Your task to perform on an android device: show emergency info Image 0: 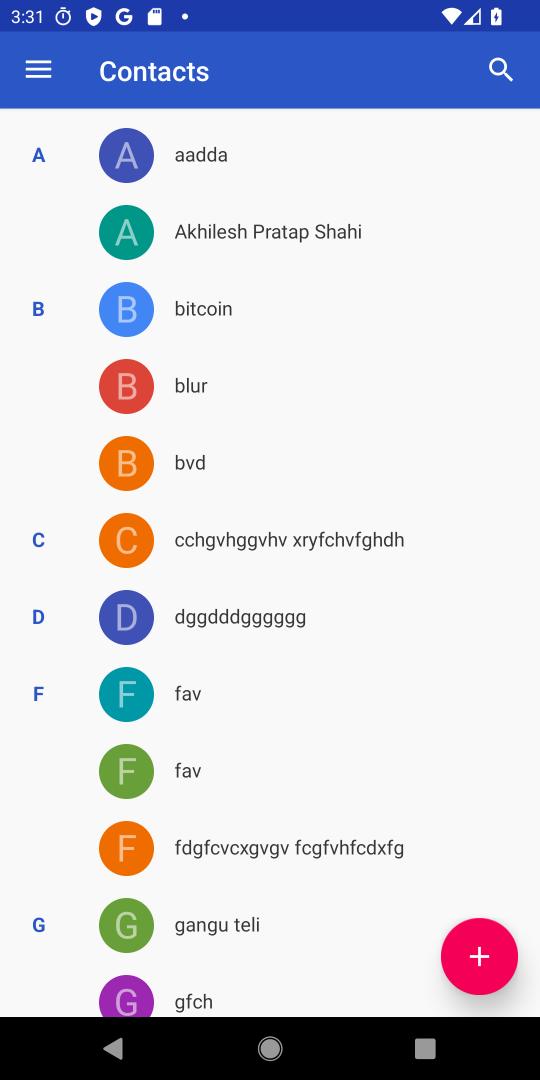
Step 0: press home button
Your task to perform on an android device: show emergency info Image 1: 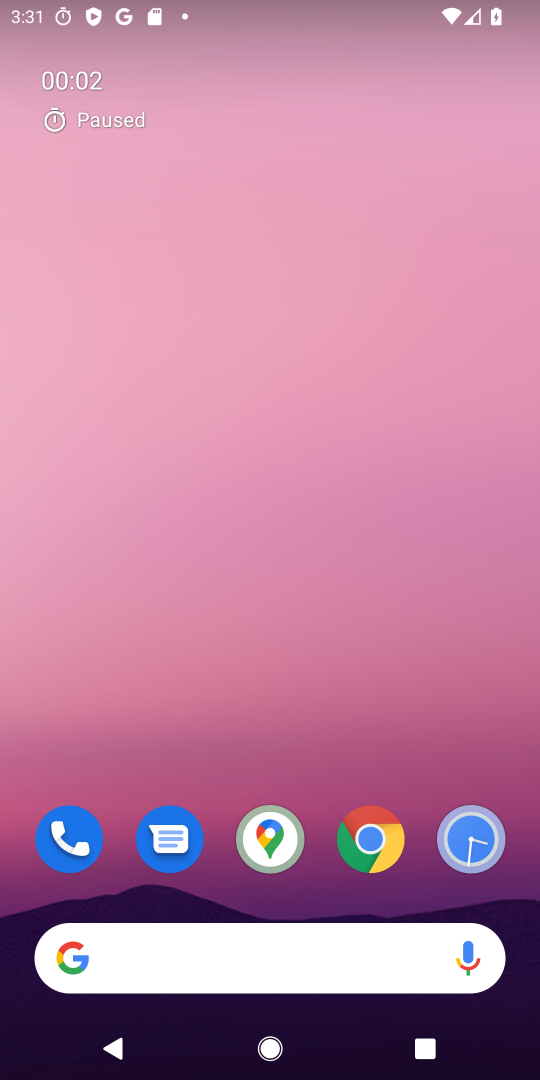
Step 1: drag from (45, 1029) to (157, 703)
Your task to perform on an android device: show emergency info Image 2: 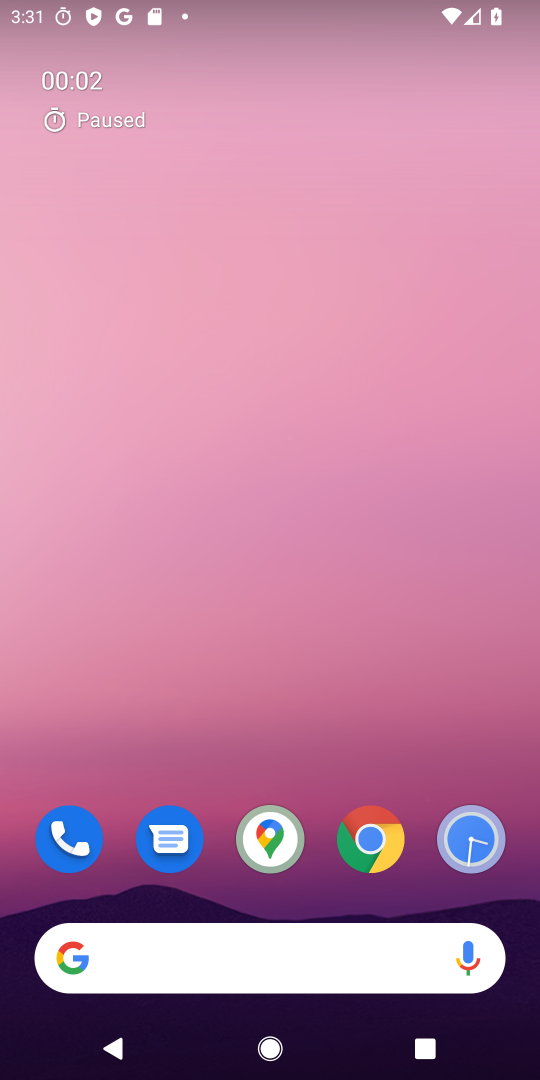
Step 2: drag from (17, 1023) to (343, 340)
Your task to perform on an android device: show emergency info Image 3: 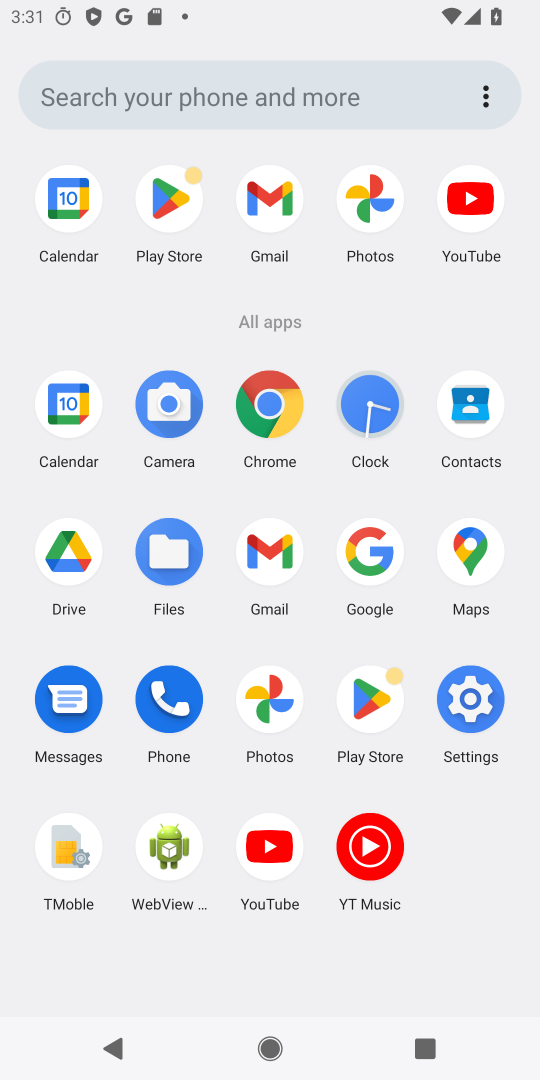
Step 3: click (455, 715)
Your task to perform on an android device: show emergency info Image 4: 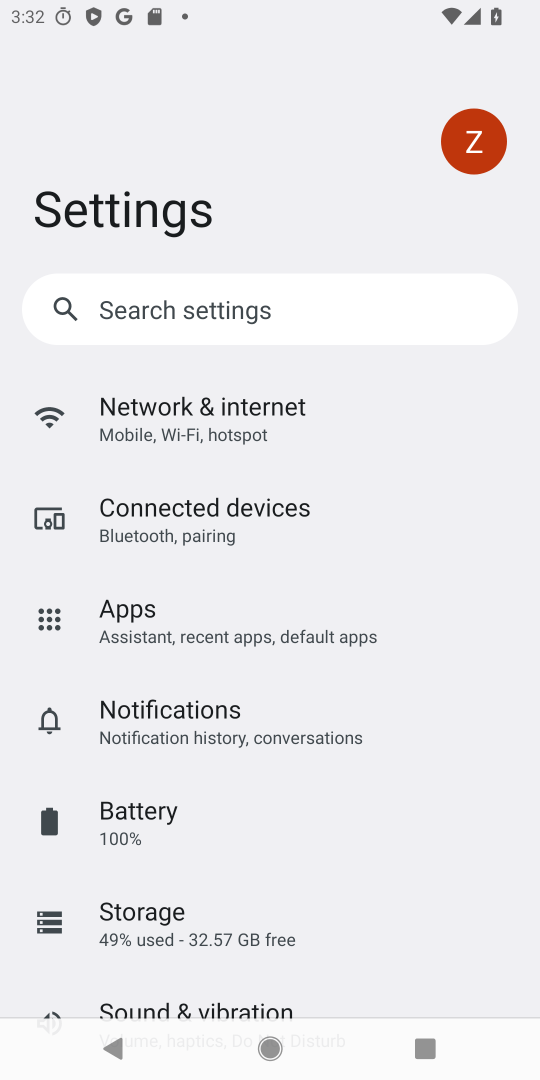
Step 4: click (171, 711)
Your task to perform on an android device: show emergency info Image 5: 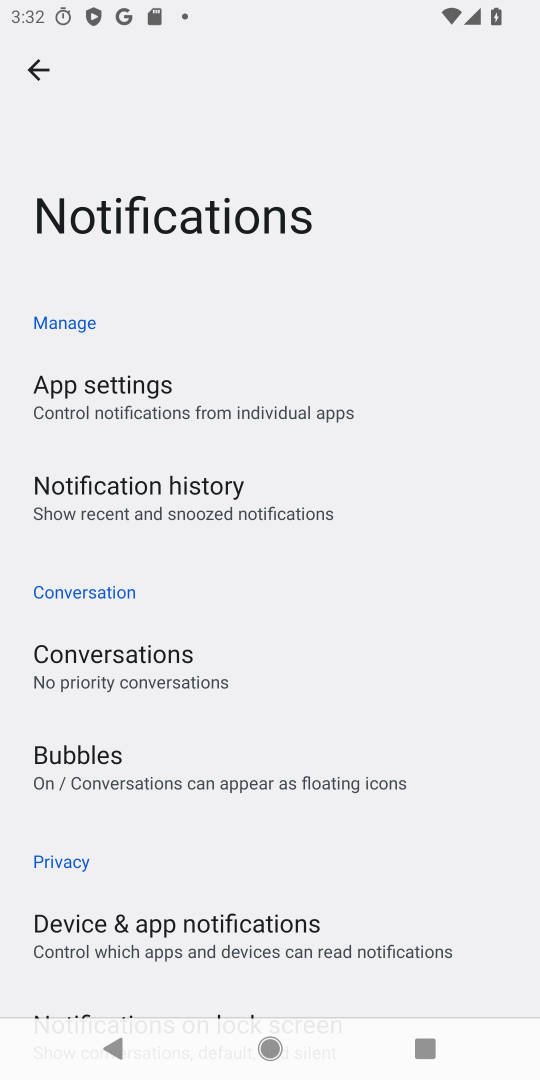
Step 5: task complete